Your task to perform on an android device: Open Maps and search for coffee Image 0: 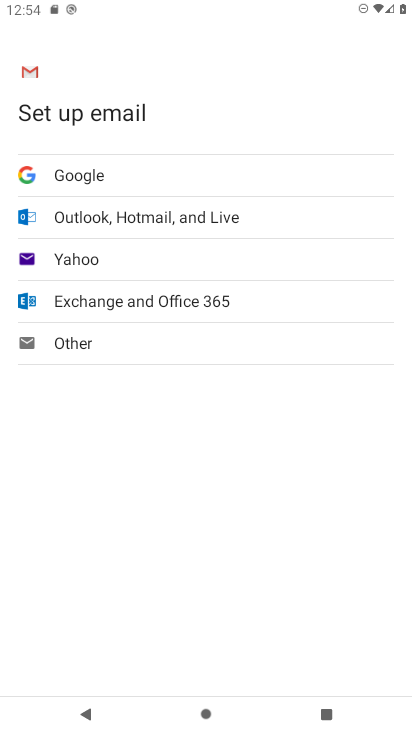
Step 0: press home button
Your task to perform on an android device: Open Maps and search for coffee Image 1: 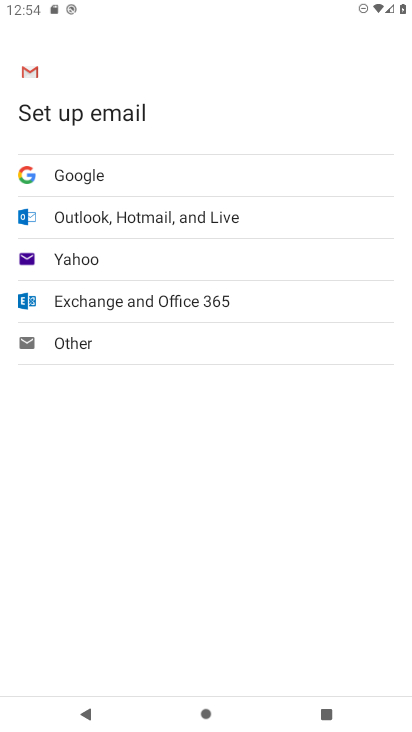
Step 1: press home button
Your task to perform on an android device: Open Maps and search for coffee Image 2: 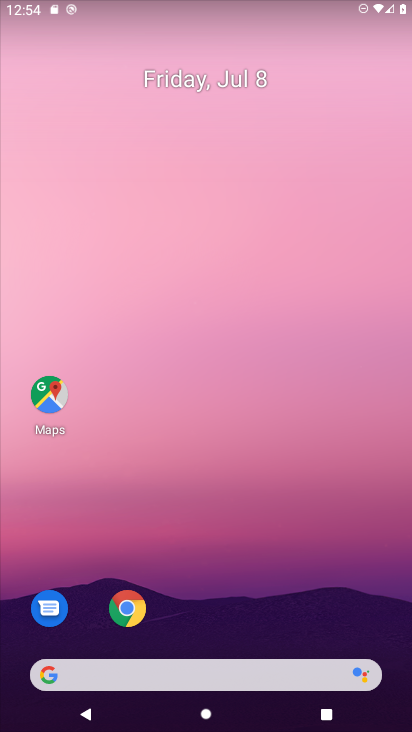
Step 2: click (250, 641)
Your task to perform on an android device: Open Maps and search for coffee Image 3: 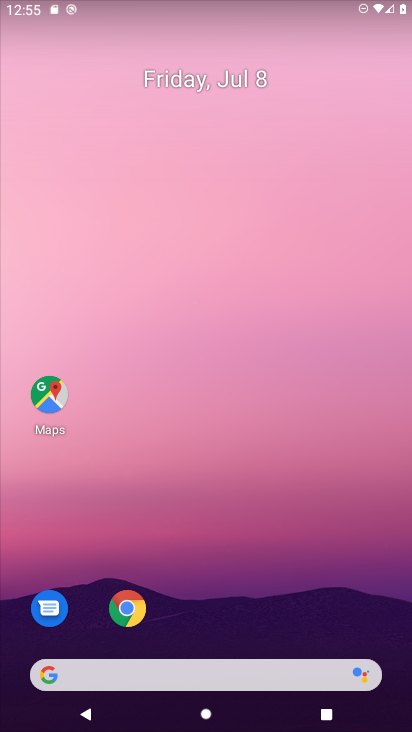
Step 3: drag from (196, 621) to (279, 213)
Your task to perform on an android device: Open Maps and search for coffee Image 4: 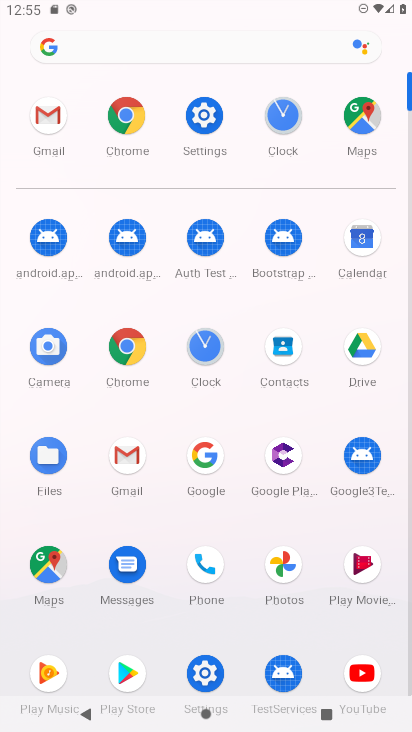
Step 4: click (343, 128)
Your task to perform on an android device: Open Maps and search for coffee Image 5: 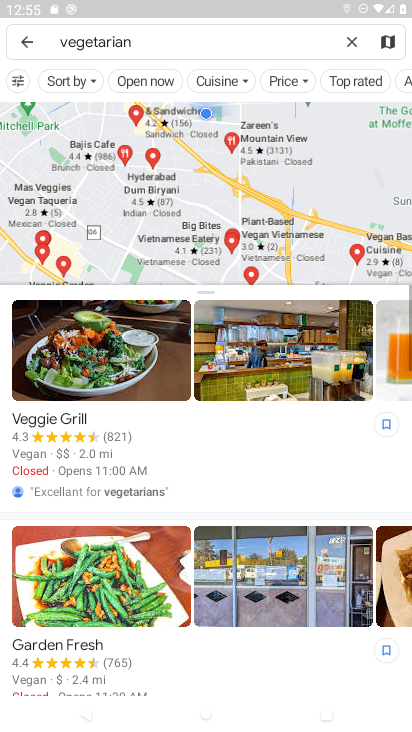
Step 5: click (353, 50)
Your task to perform on an android device: Open Maps and search for coffee Image 6: 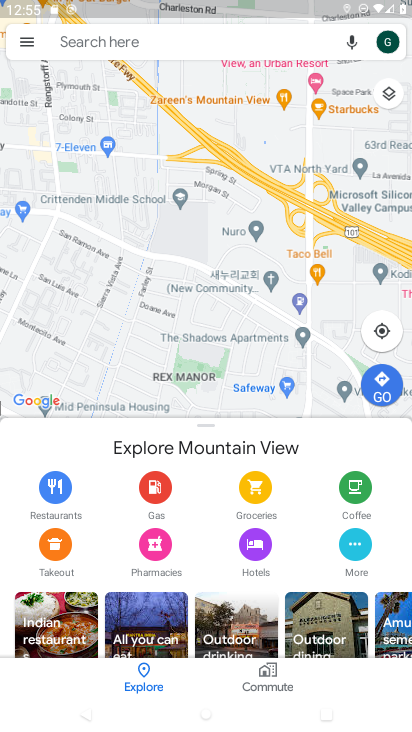
Step 6: type "coffee"
Your task to perform on an android device: Open Maps and search for coffee Image 7: 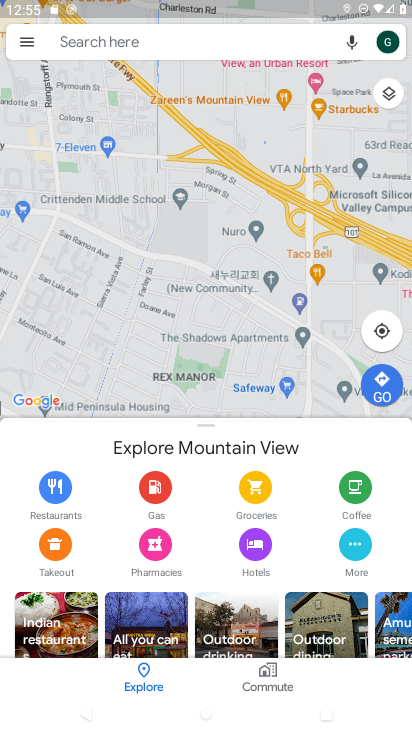
Step 7: click (138, 46)
Your task to perform on an android device: Open Maps and search for coffee Image 8: 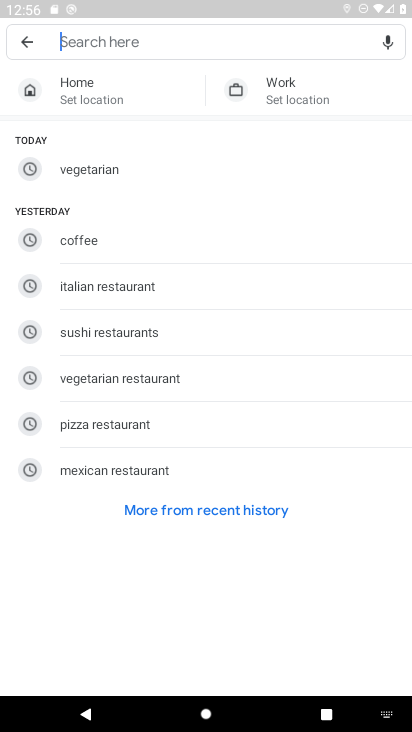
Step 8: click (82, 246)
Your task to perform on an android device: Open Maps and search for coffee Image 9: 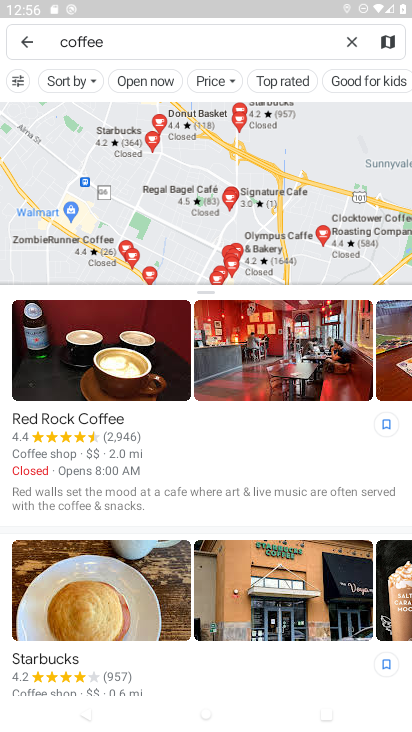
Step 9: task complete